Your task to perform on an android device: Go to Amazon Image 0: 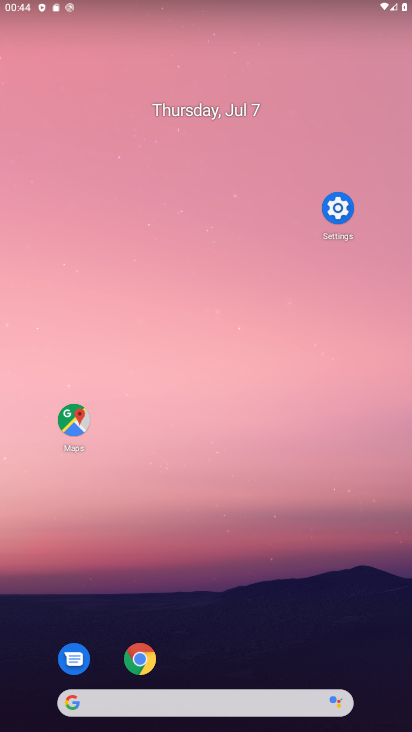
Step 0: drag from (235, 562) to (401, 181)
Your task to perform on an android device: Go to Amazon Image 1: 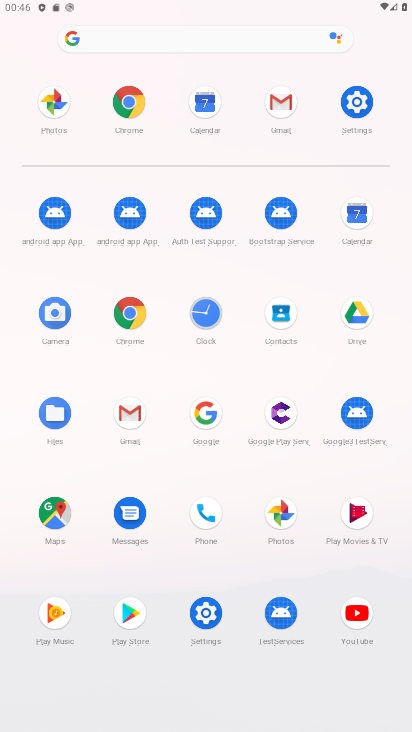
Step 1: click (125, 320)
Your task to perform on an android device: Go to Amazon Image 2: 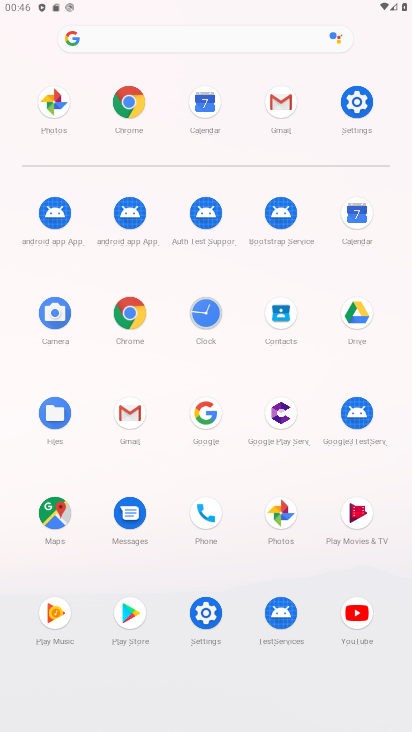
Step 2: click (129, 315)
Your task to perform on an android device: Go to Amazon Image 3: 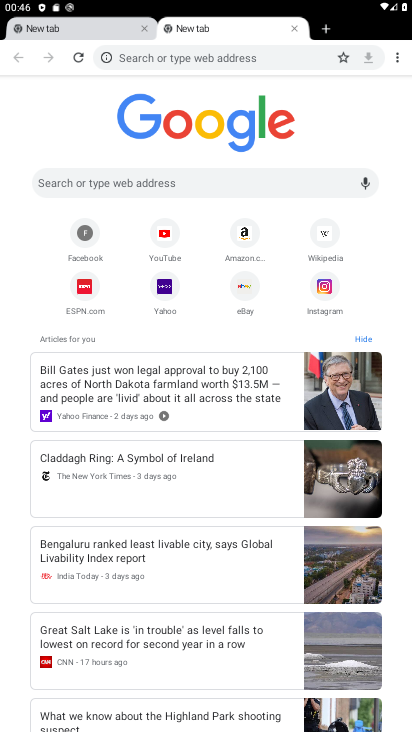
Step 3: click (236, 231)
Your task to perform on an android device: Go to Amazon Image 4: 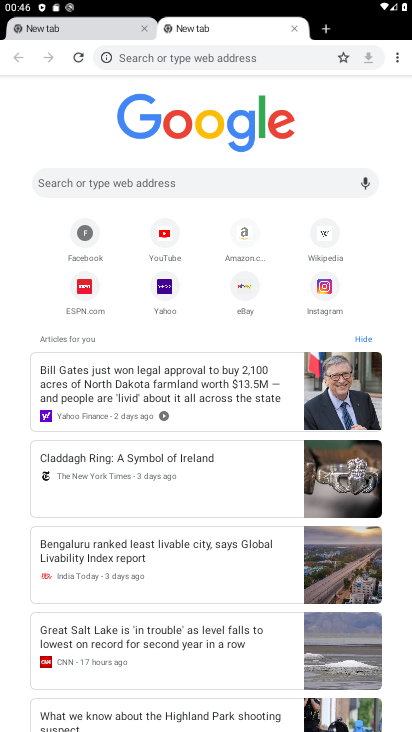
Step 4: click (242, 225)
Your task to perform on an android device: Go to Amazon Image 5: 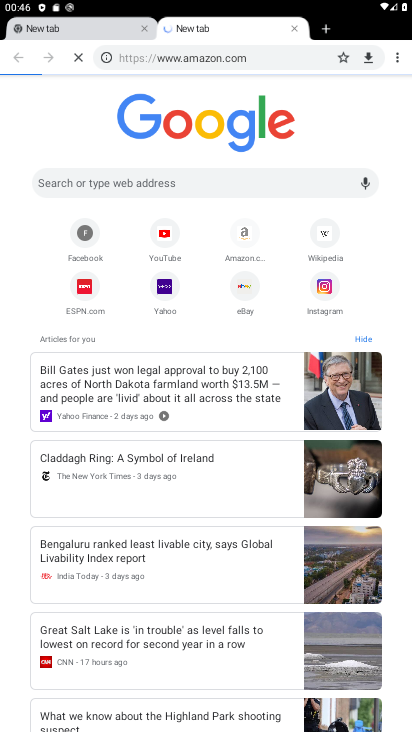
Step 5: click (246, 224)
Your task to perform on an android device: Go to Amazon Image 6: 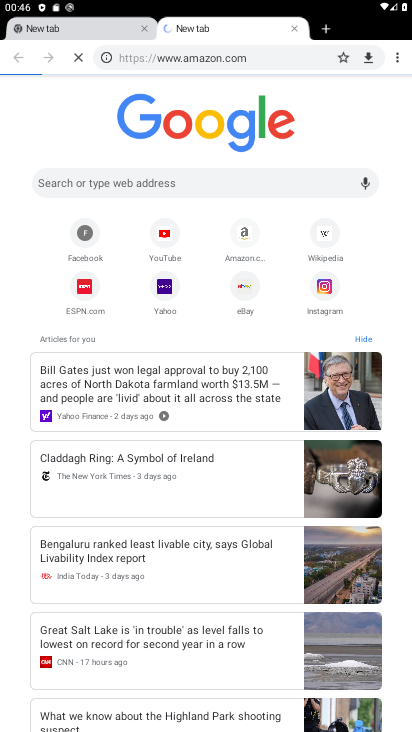
Step 6: click (248, 224)
Your task to perform on an android device: Go to Amazon Image 7: 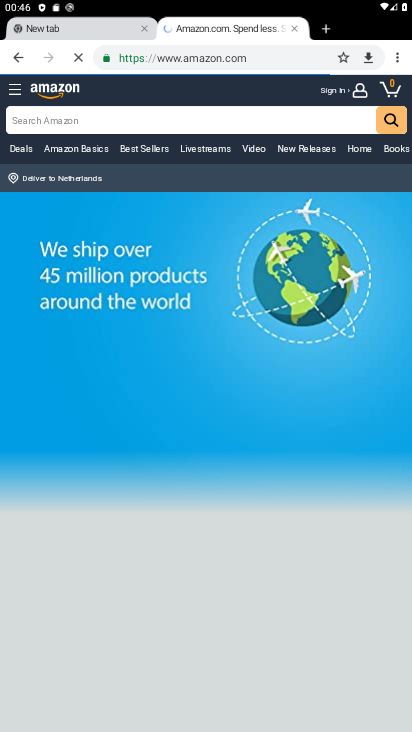
Step 7: task complete